Your task to perform on an android device: create a new album in the google photos Image 0: 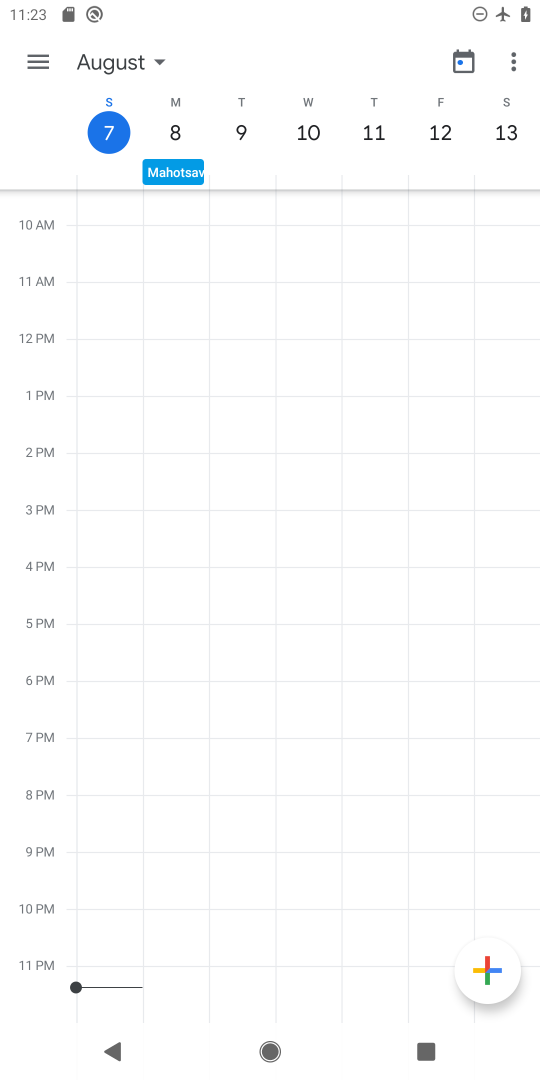
Step 0: press home button
Your task to perform on an android device: create a new album in the google photos Image 1: 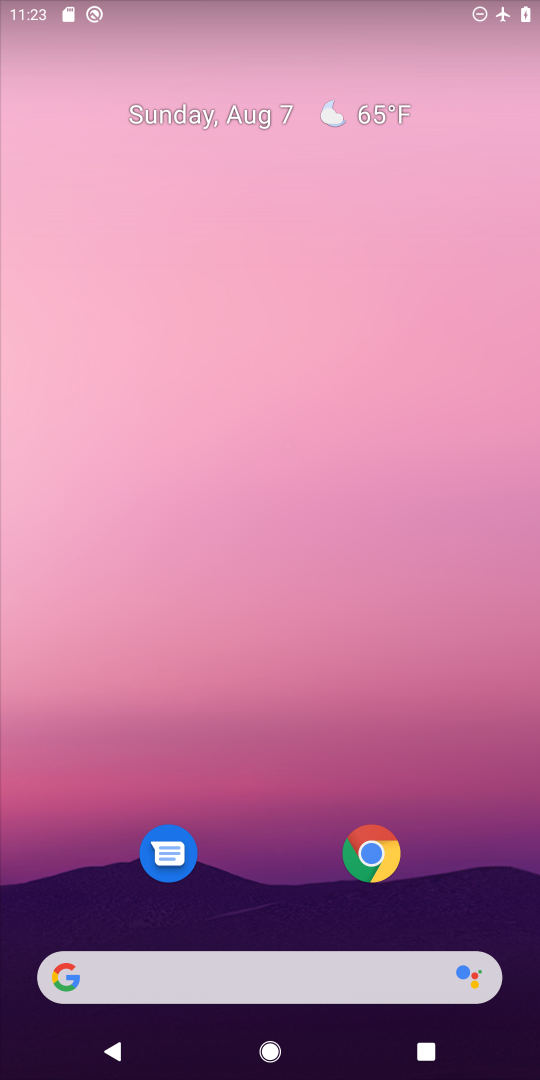
Step 1: drag from (286, 962) to (301, 188)
Your task to perform on an android device: create a new album in the google photos Image 2: 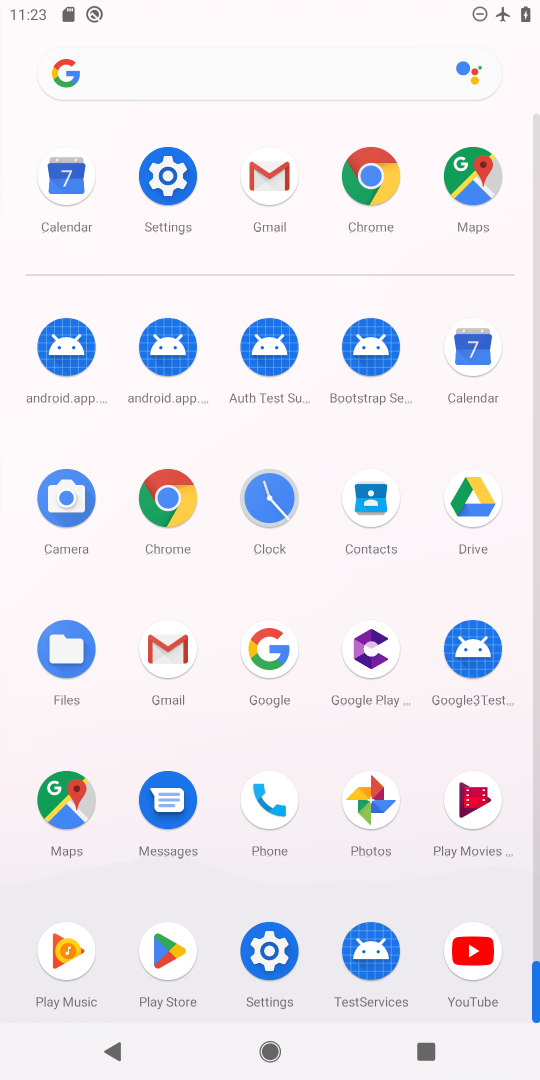
Step 2: click (357, 809)
Your task to perform on an android device: create a new album in the google photos Image 3: 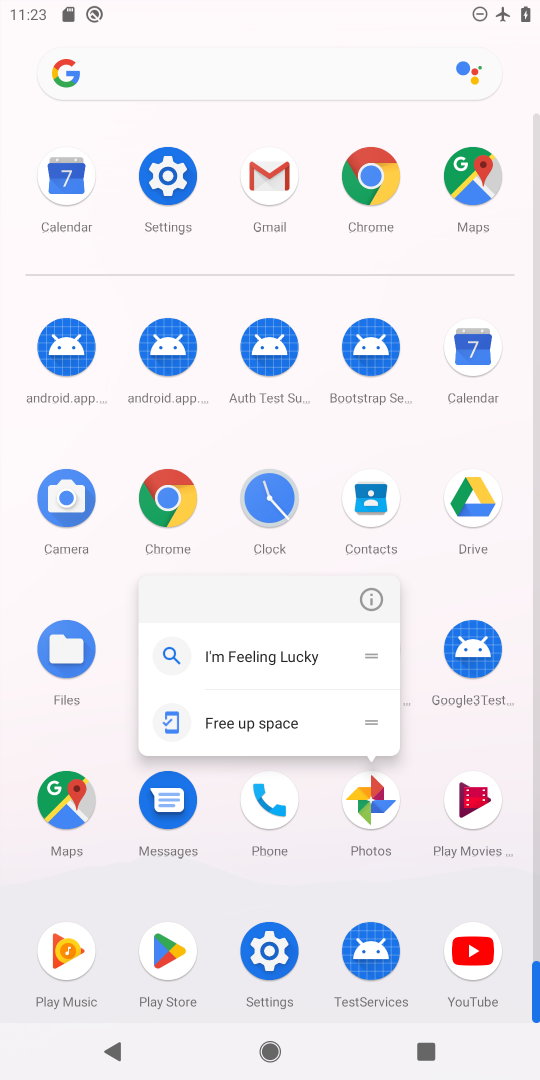
Step 3: click (359, 802)
Your task to perform on an android device: create a new album in the google photos Image 4: 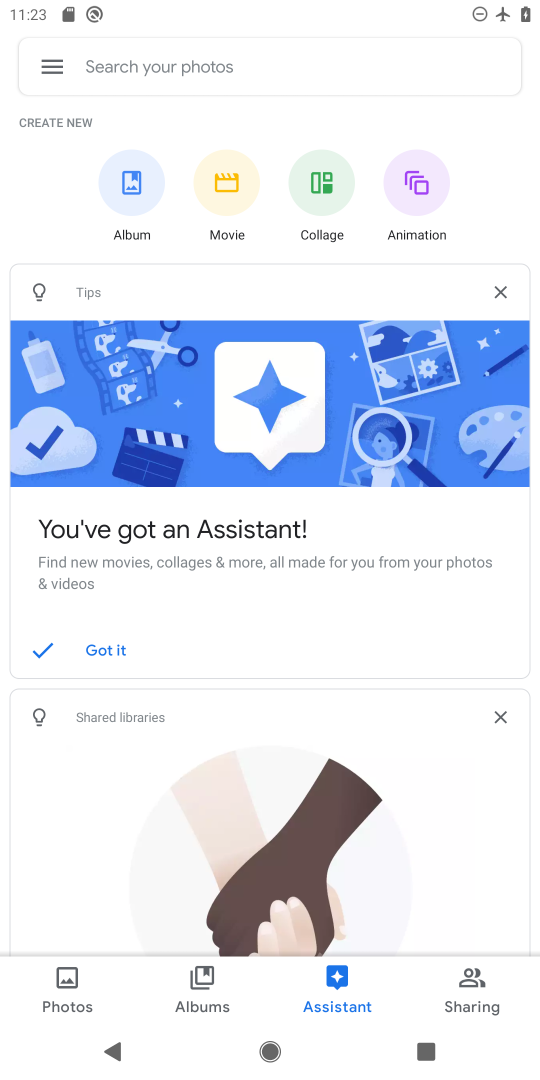
Step 4: click (111, 974)
Your task to perform on an android device: create a new album in the google photos Image 5: 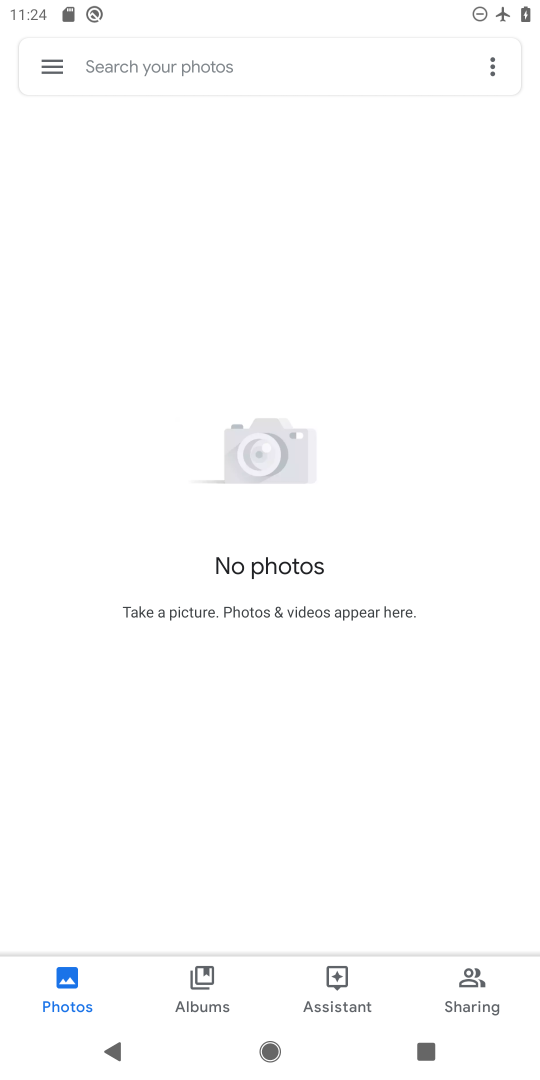
Step 5: task complete